Your task to perform on an android device: Open sound settings Image 0: 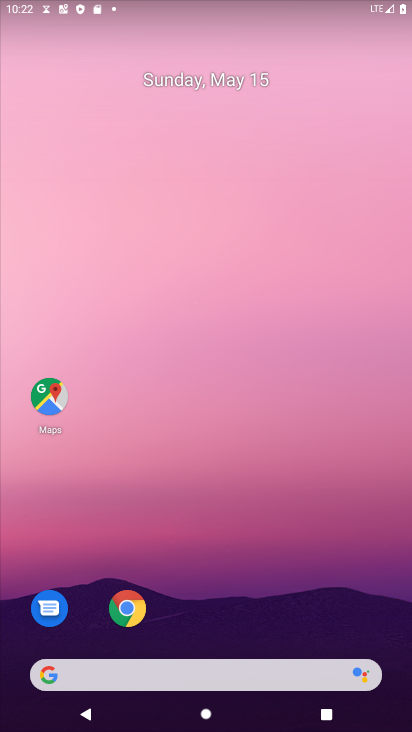
Step 0: drag from (341, 508) to (391, 154)
Your task to perform on an android device: Open sound settings Image 1: 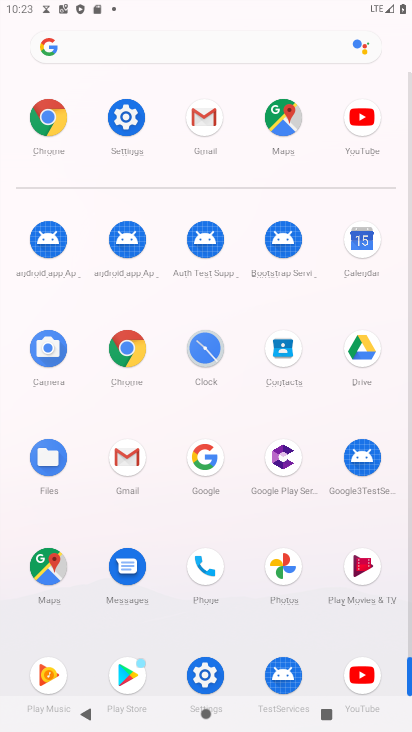
Step 1: click (141, 129)
Your task to perform on an android device: Open sound settings Image 2: 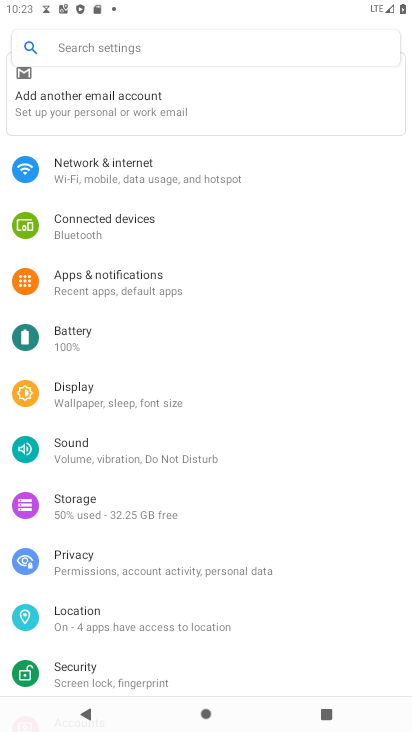
Step 2: click (56, 442)
Your task to perform on an android device: Open sound settings Image 3: 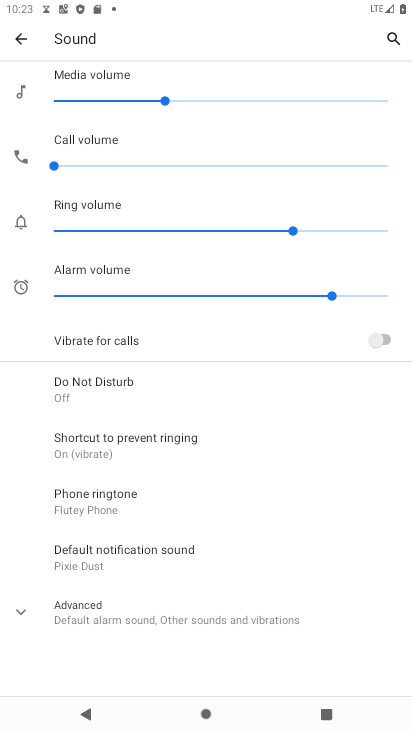
Step 3: task complete